Your task to perform on an android device: Check the settings for the Google Play Books app Image 0: 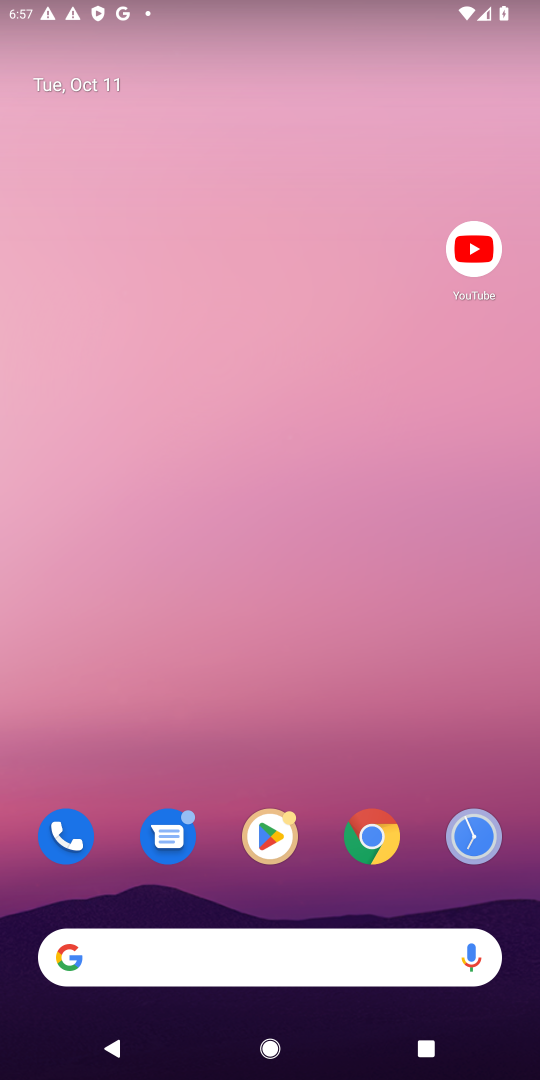
Step 0: drag from (199, 956) to (289, 112)
Your task to perform on an android device: Check the settings for the Google Play Books app Image 1: 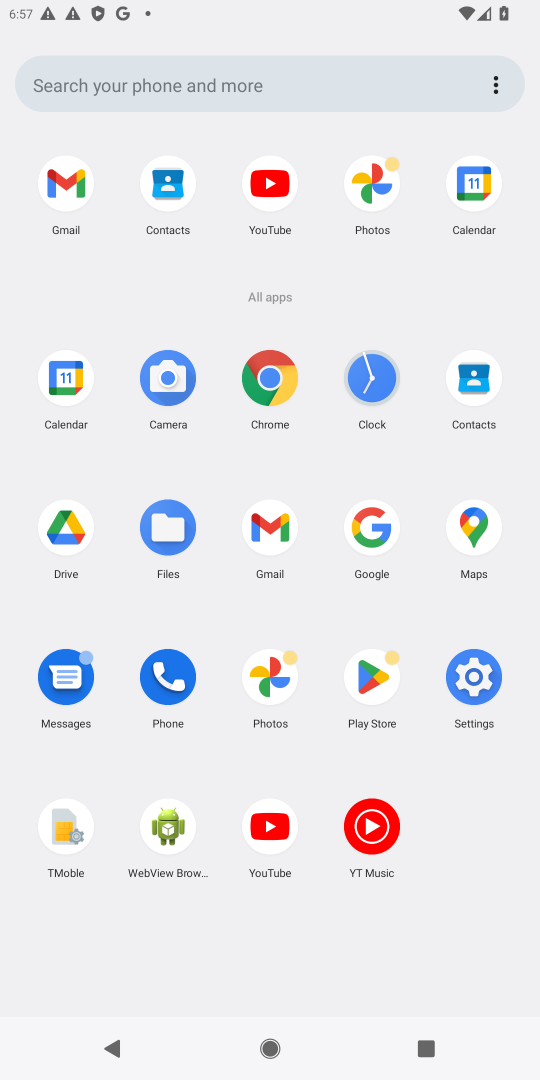
Step 1: click (367, 674)
Your task to perform on an android device: Check the settings for the Google Play Books app Image 2: 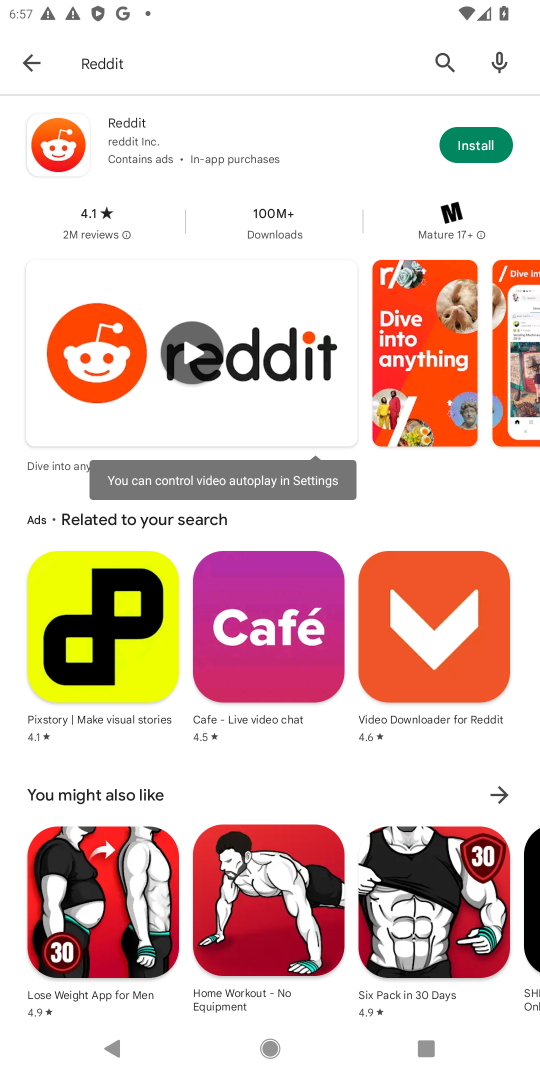
Step 2: click (437, 52)
Your task to perform on an android device: Check the settings for the Google Play Books app Image 3: 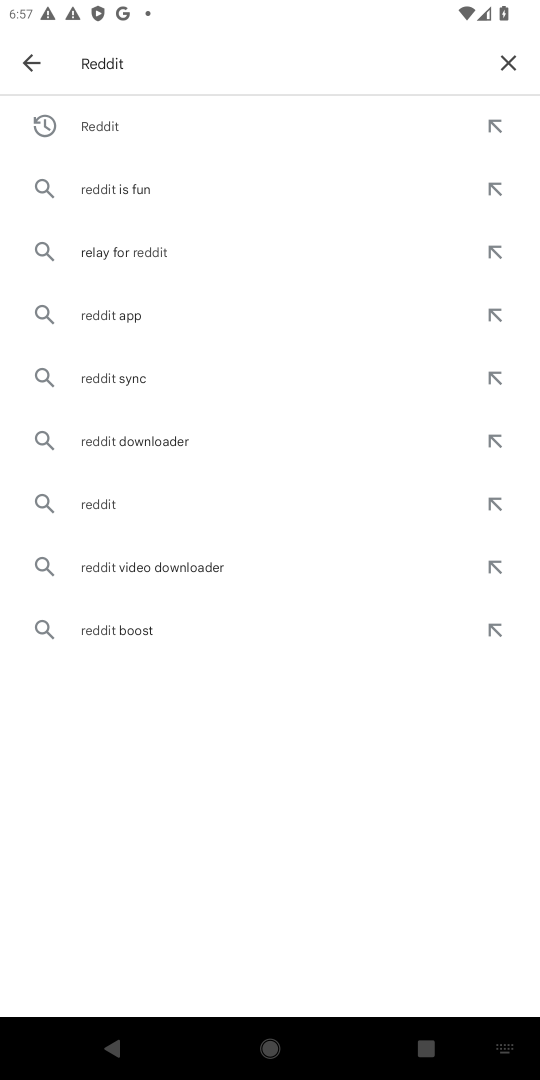
Step 3: press back button
Your task to perform on an android device: Check the settings for the Google Play Books app Image 4: 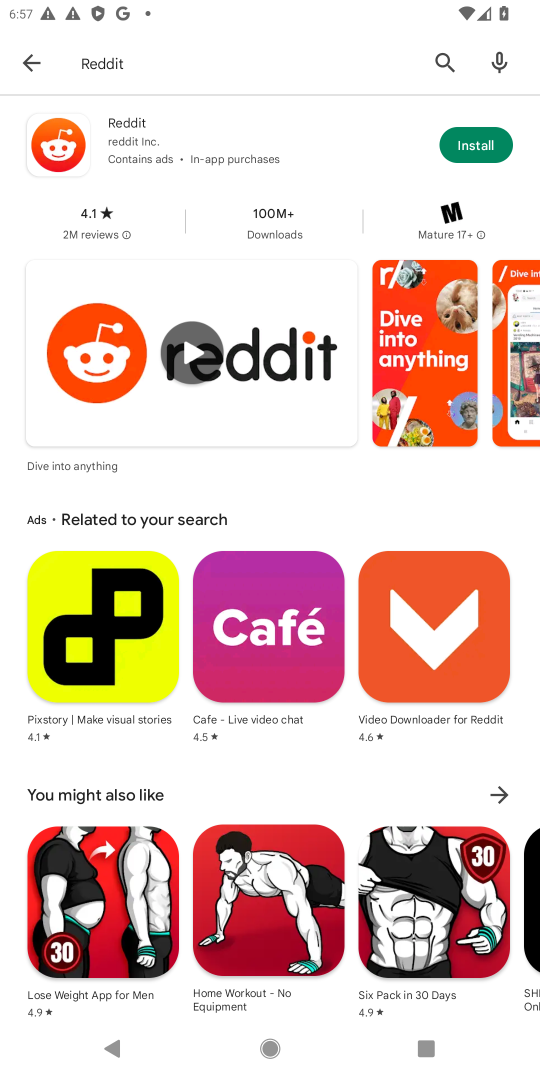
Step 4: press back button
Your task to perform on an android device: Check the settings for the Google Play Books app Image 5: 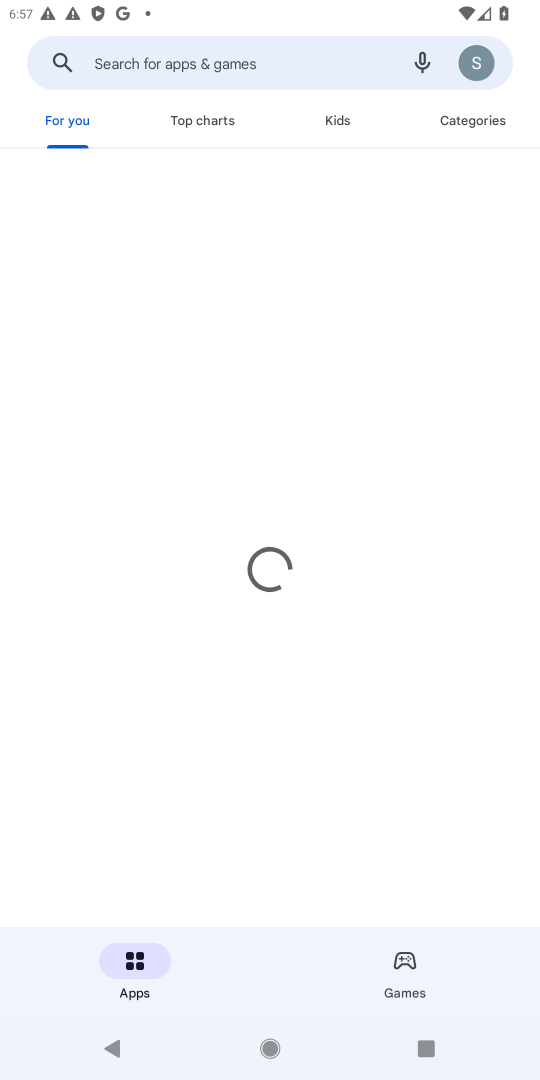
Step 5: click (139, 965)
Your task to perform on an android device: Check the settings for the Google Play Books app Image 6: 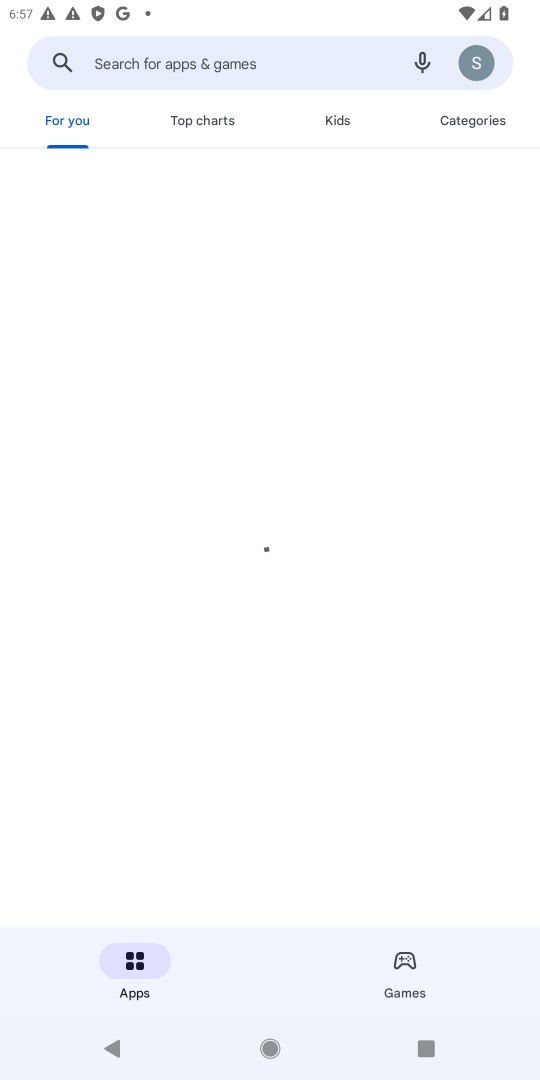
Step 6: click (203, 117)
Your task to perform on an android device: Check the settings for the Google Play Books app Image 7: 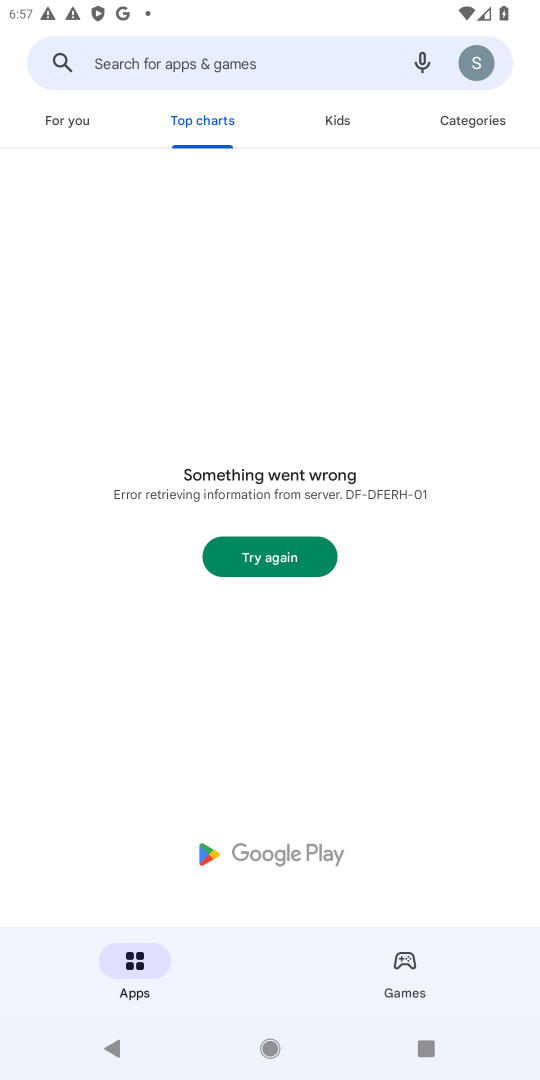
Step 7: click (77, 121)
Your task to perform on an android device: Check the settings for the Google Play Books app Image 8: 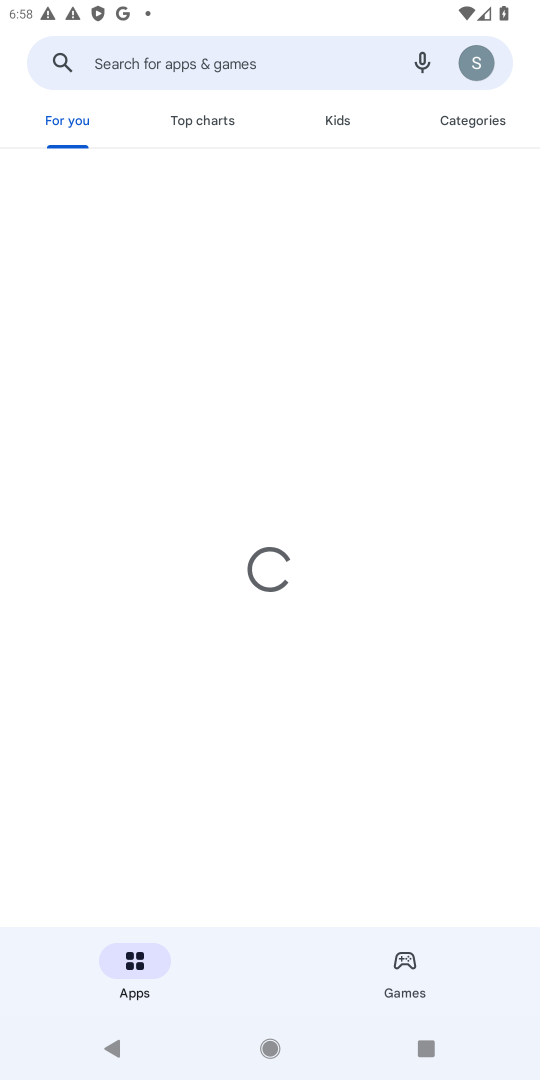
Step 8: task complete